Your task to perform on an android device: Go to Google maps Image 0: 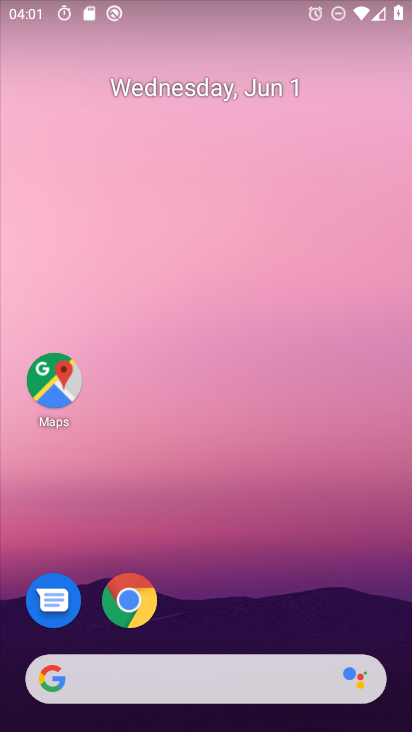
Step 0: click (52, 389)
Your task to perform on an android device: Go to Google maps Image 1: 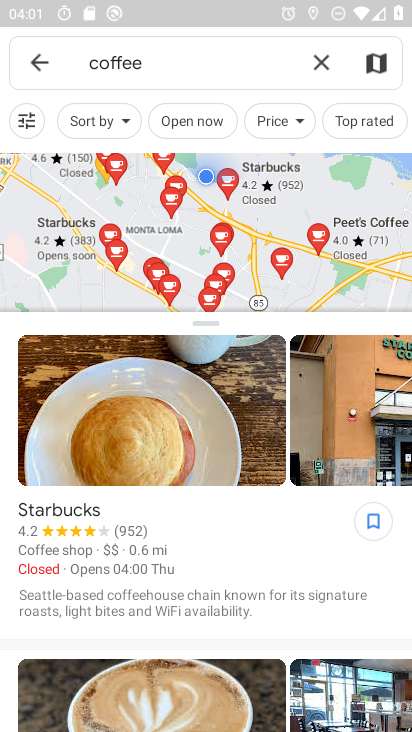
Step 1: task complete